Your task to perform on an android device: turn off priority inbox in the gmail app Image 0: 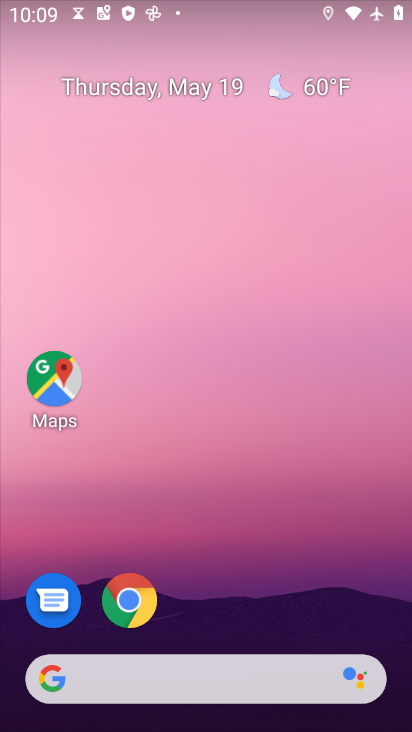
Step 0: drag from (249, 502) to (231, 25)
Your task to perform on an android device: turn off priority inbox in the gmail app Image 1: 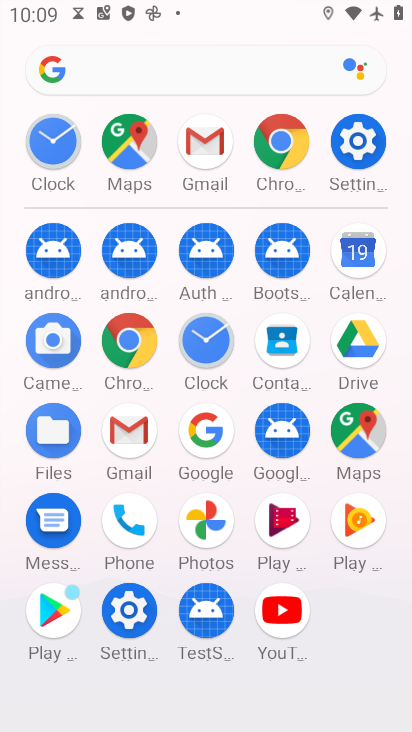
Step 1: drag from (4, 546) to (6, 227)
Your task to perform on an android device: turn off priority inbox in the gmail app Image 2: 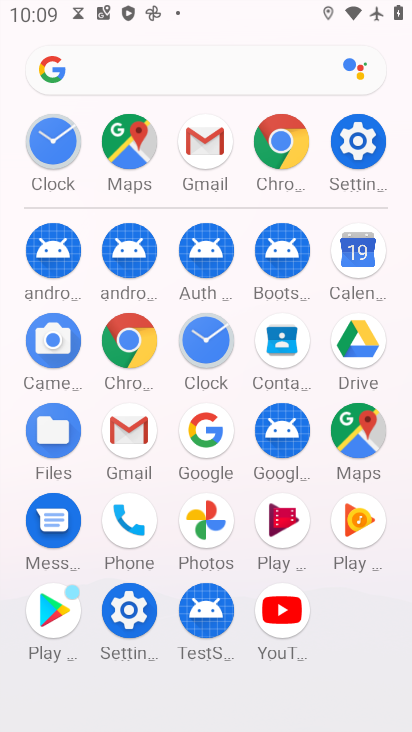
Step 2: click (128, 425)
Your task to perform on an android device: turn off priority inbox in the gmail app Image 3: 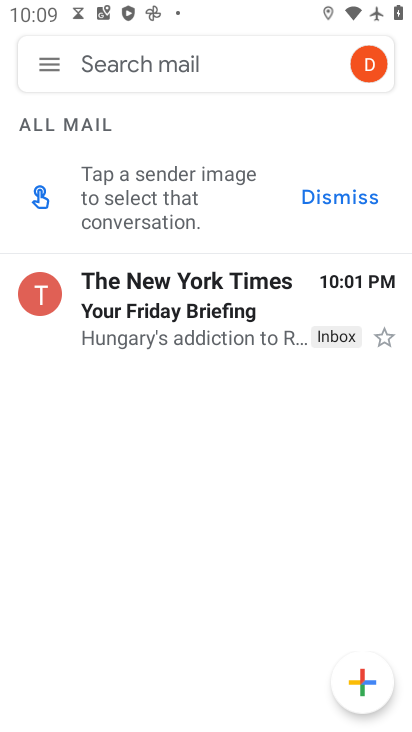
Step 3: click (49, 47)
Your task to perform on an android device: turn off priority inbox in the gmail app Image 4: 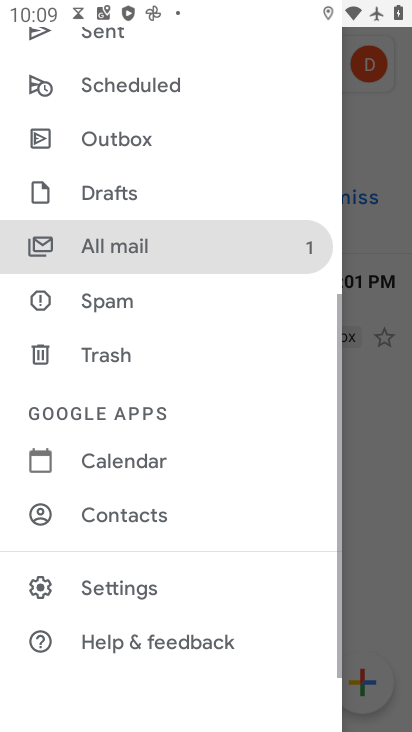
Step 4: click (146, 593)
Your task to perform on an android device: turn off priority inbox in the gmail app Image 5: 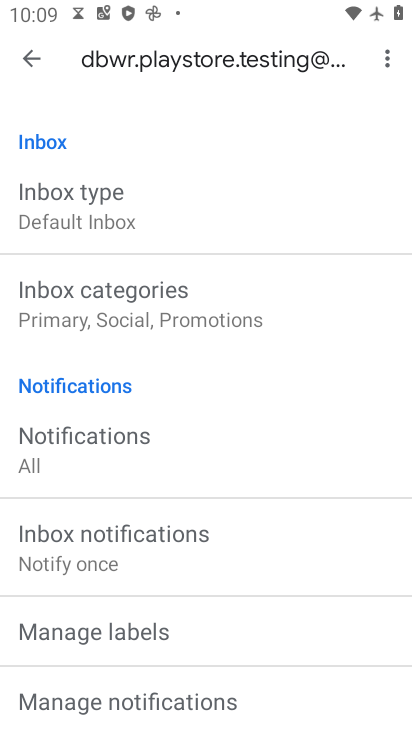
Step 5: click (115, 204)
Your task to perform on an android device: turn off priority inbox in the gmail app Image 6: 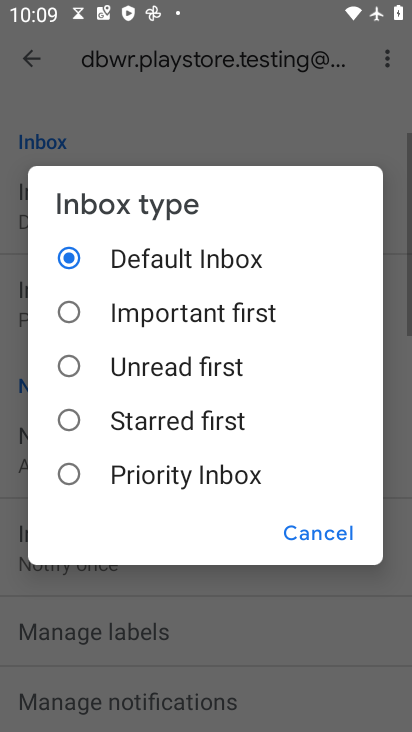
Step 6: click (140, 479)
Your task to perform on an android device: turn off priority inbox in the gmail app Image 7: 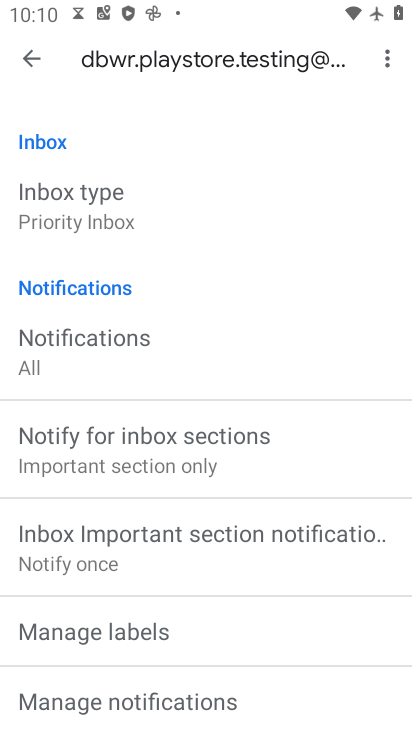
Step 7: click (158, 211)
Your task to perform on an android device: turn off priority inbox in the gmail app Image 8: 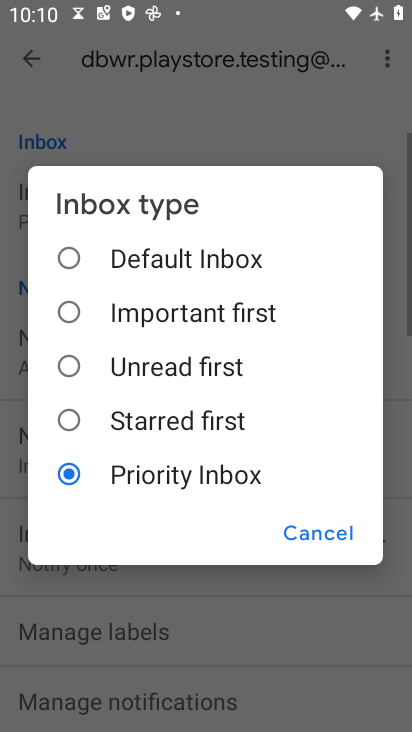
Step 8: click (159, 259)
Your task to perform on an android device: turn off priority inbox in the gmail app Image 9: 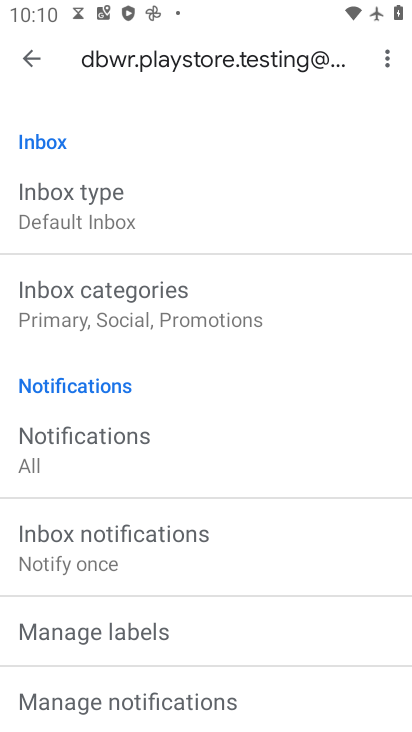
Step 9: task complete